Your task to perform on an android device: Search for sushi restaurants on Maps Image 0: 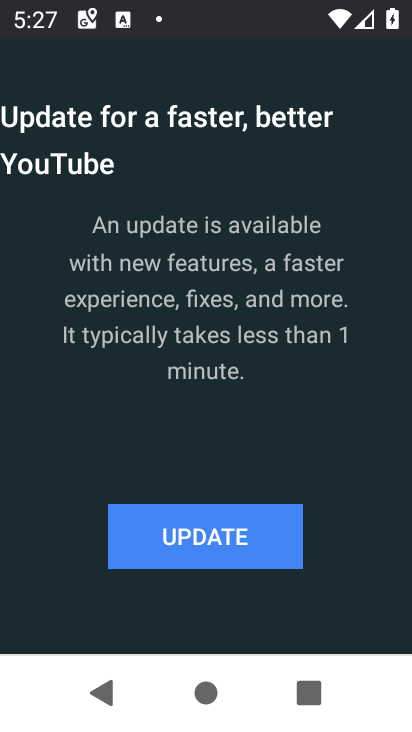
Step 0: press home button
Your task to perform on an android device: Search for sushi restaurants on Maps Image 1: 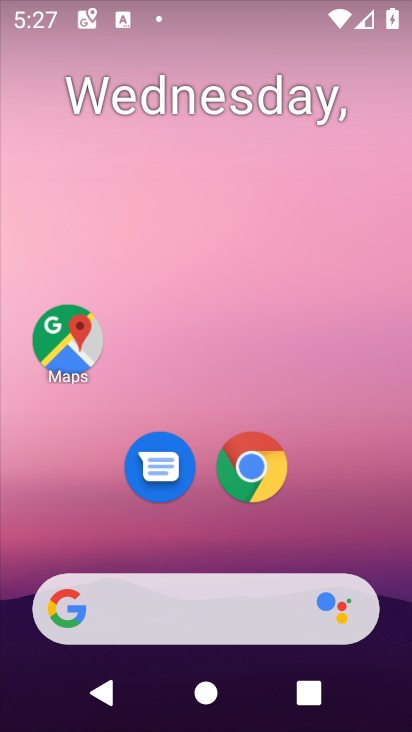
Step 1: click (72, 346)
Your task to perform on an android device: Search for sushi restaurants on Maps Image 2: 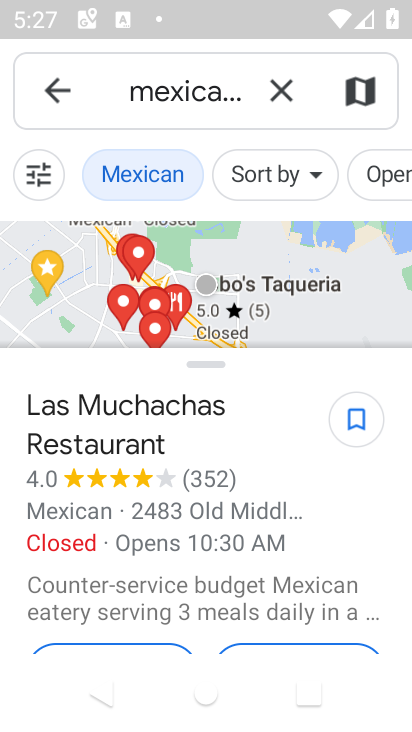
Step 2: click (282, 86)
Your task to perform on an android device: Search for sushi restaurants on Maps Image 3: 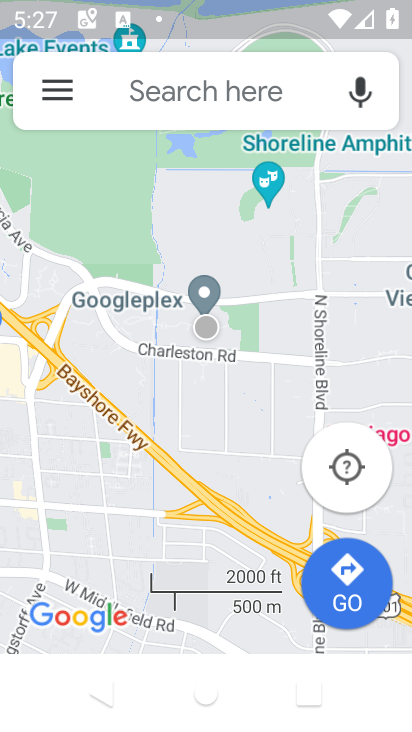
Step 3: click (207, 112)
Your task to perform on an android device: Search for sushi restaurants on Maps Image 4: 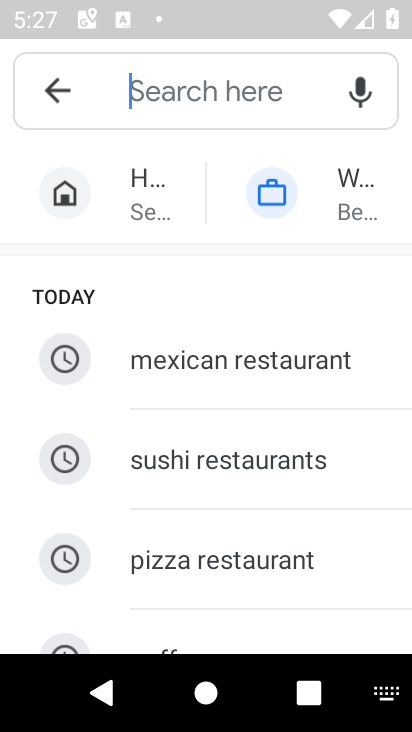
Step 4: click (223, 449)
Your task to perform on an android device: Search for sushi restaurants on Maps Image 5: 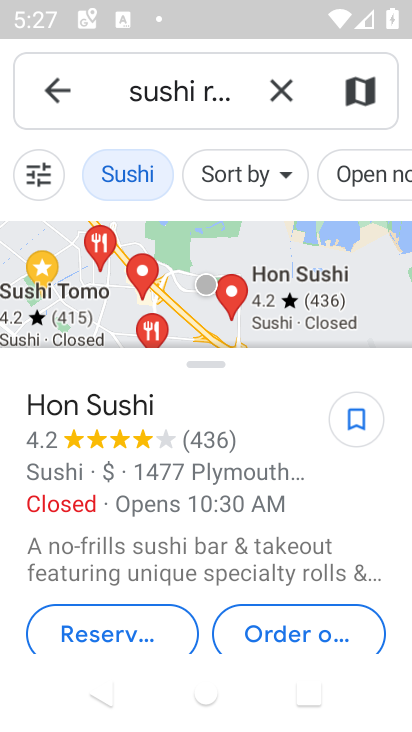
Step 5: task complete